Your task to perform on an android device: Open settings on Google Maps Image 0: 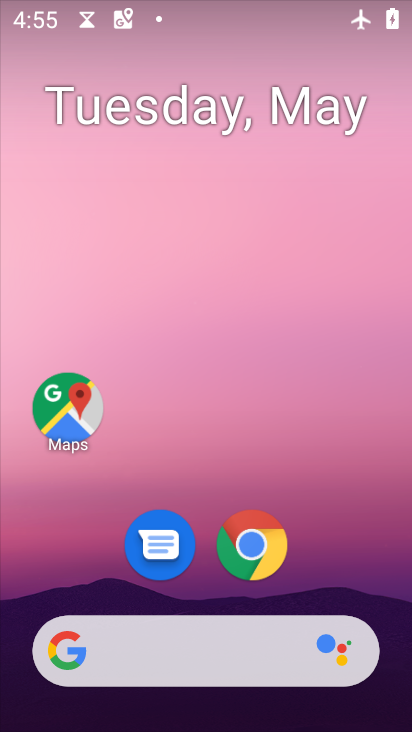
Step 0: click (69, 410)
Your task to perform on an android device: Open settings on Google Maps Image 1: 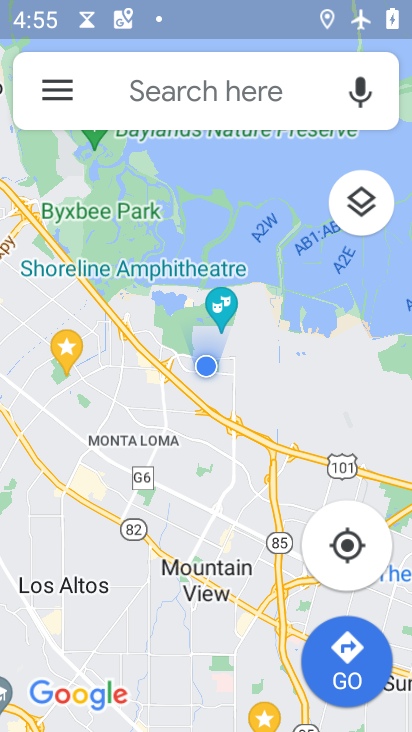
Step 1: click (47, 94)
Your task to perform on an android device: Open settings on Google Maps Image 2: 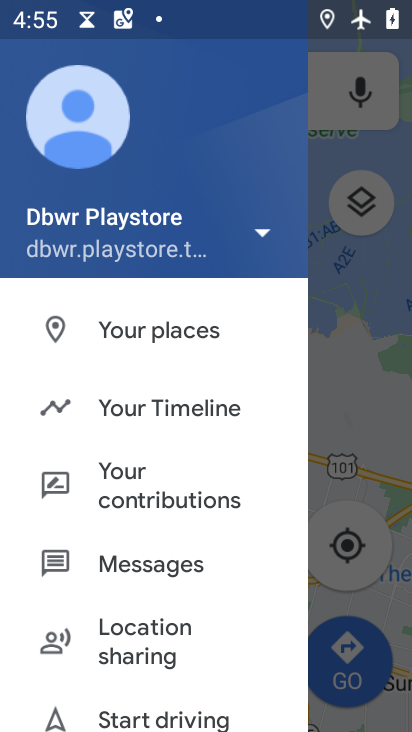
Step 2: drag from (114, 376) to (168, 285)
Your task to perform on an android device: Open settings on Google Maps Image 3: 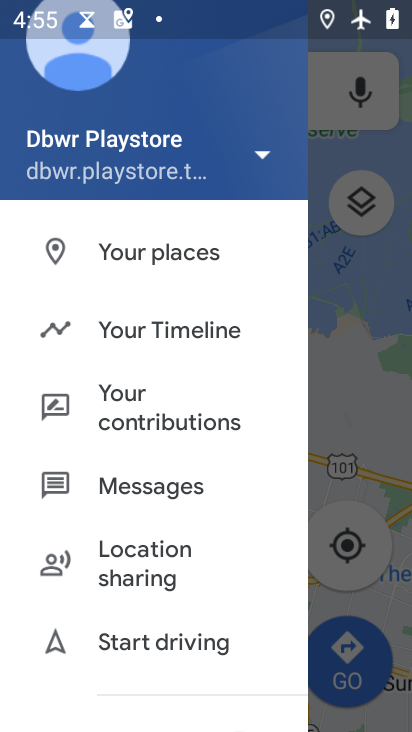
Step 3: drag from (176, 372) to (207, 272)
Your task to perform on an android device: Open settings on Google Maps Image 4: 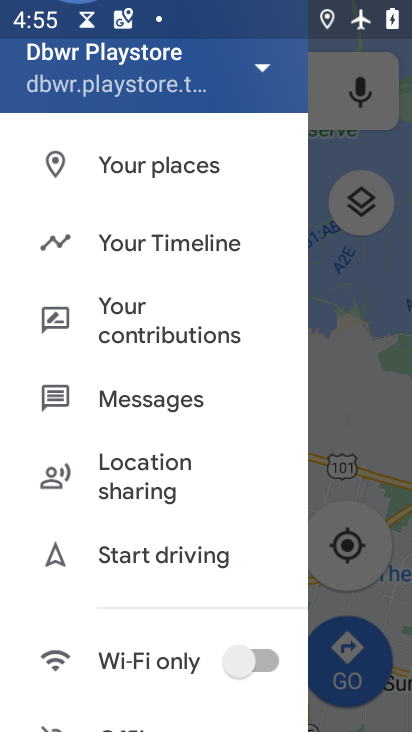
Step 4: drag from (138, 418) to (165, 341)
Your task to perform on an android device: Open settings on Google Maps Image 5: 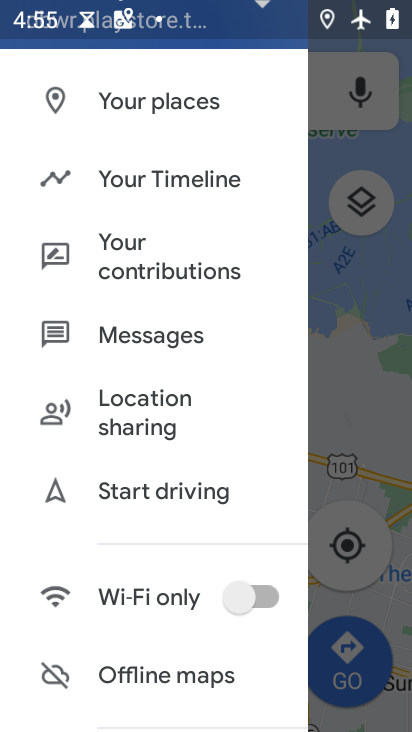
Step 5: drag from (137, 449) to (159, 354)
Your task to perform on an android device: Open settings on Google Maps Image 6: 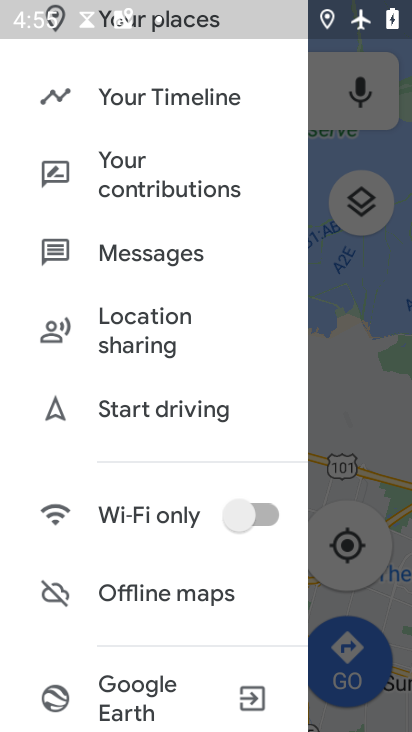
Step 6: drag from (135, 433) to (161, 320)
Your task to perform on an android device: Open settings on Google Maps Image 7: 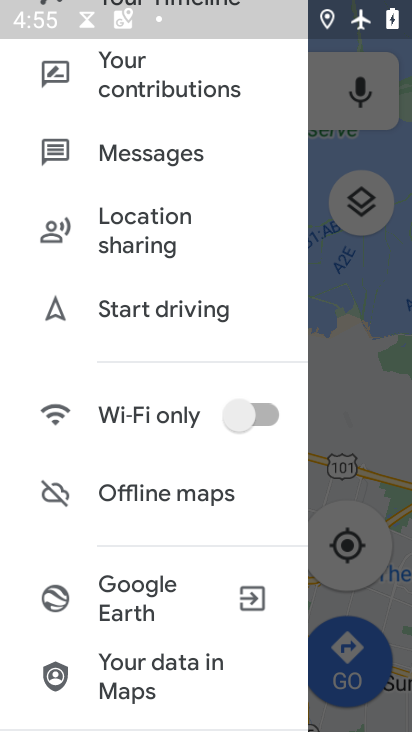
Step 7: drag from (147, 384) to (197, 262)
Your task to perform on an android device: Open settings on Google Maps Image 8: 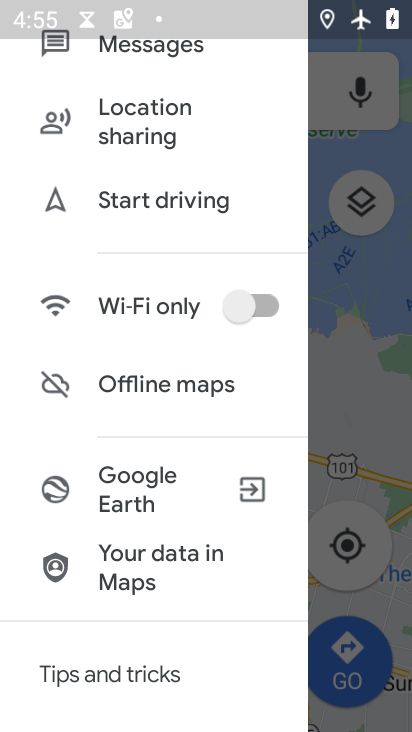
Step 8: drag from (136, 409) to (186, 297)
Your task to perform on an android device: Open settings on Google Maps Image 9: 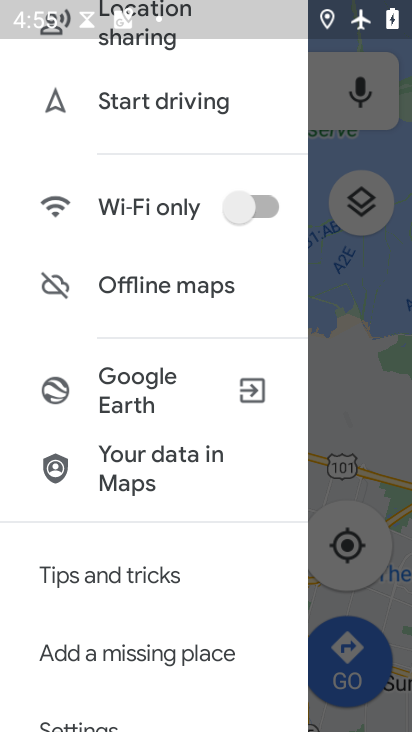
Step 9: drag from (132, 427) to (201, 301)
Your task to perform on an android device: Open settings on Google Maps Image 10: 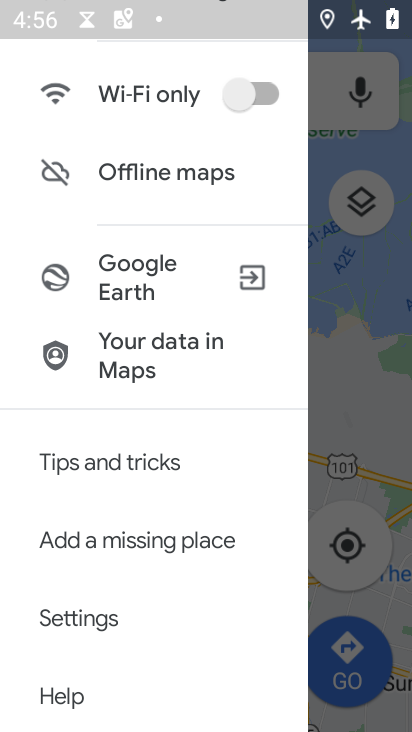
Step 10: click (94, 618)
Your task to perform on an android device: Open settings on Google Maps Image 11: 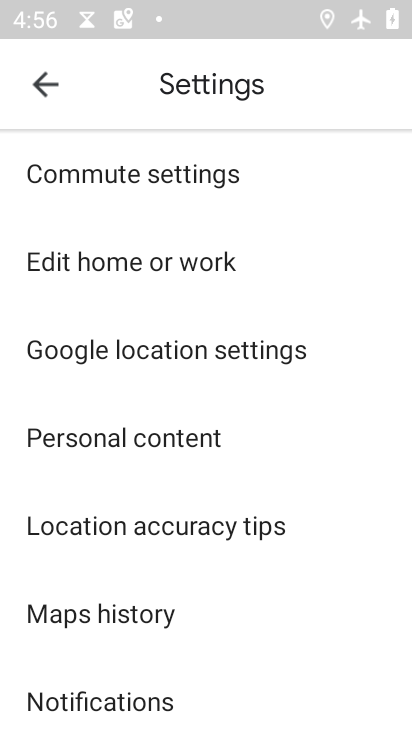
Step 11: task complete